Your task to perform on an android device: turn on sleep mode Image 0: 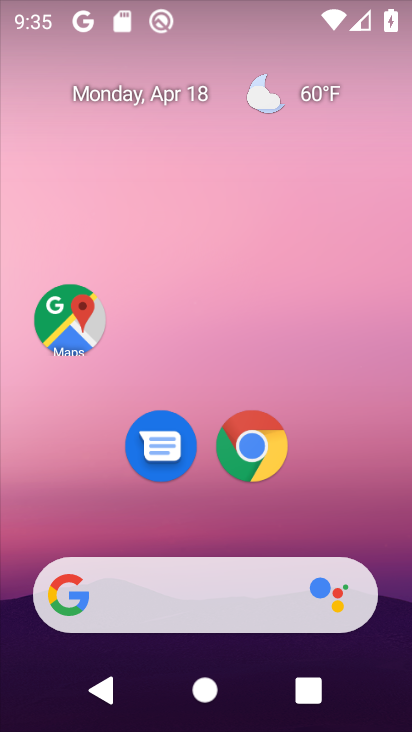
Step 0: drag from (390, 546) to (363, 25)
Your task to perform on an android device: turn on sleep mode Image 1: 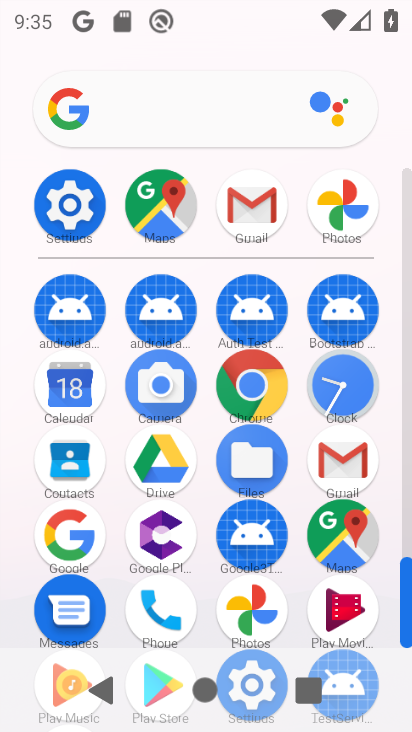
Step 1: click (80, 223)
Your task to perform on an android device: turn on sleep mode Image 2: 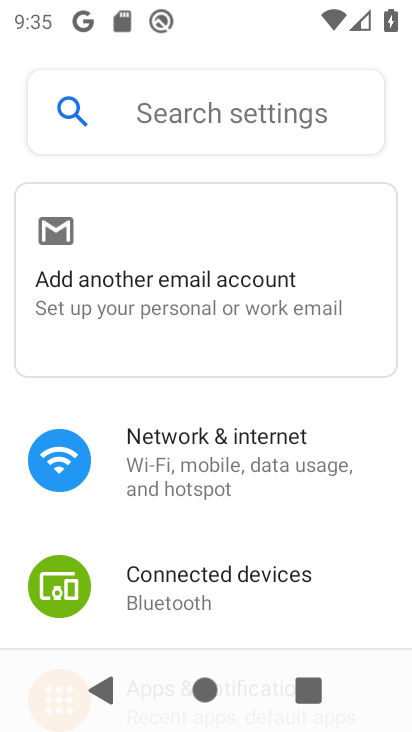
Step 2: drag from (367, 583) to (364, 365)
Your task to perform on an android device: turn on sleep mode Image 3: 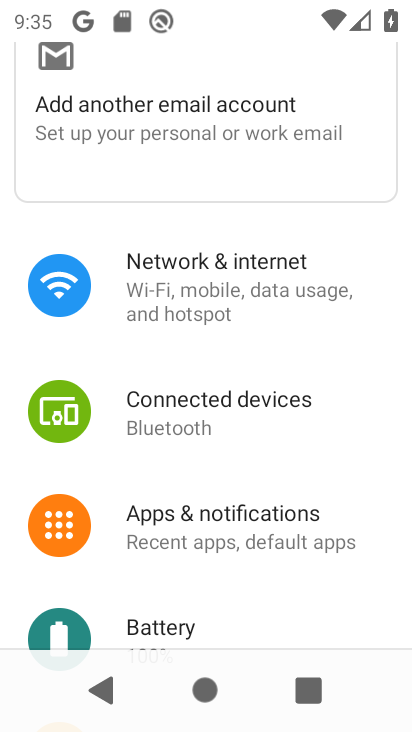
Step 3: drag from (379, 579) to (383, 397)
Your task to perform on an android device: turn on sleep mode Image 4: 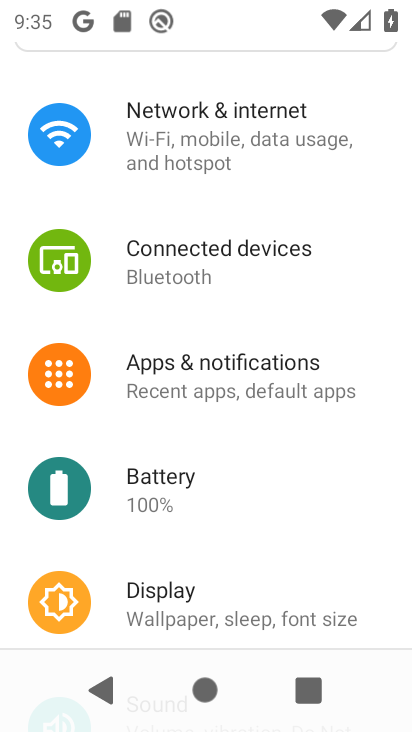
Step 4: drag from (382, 556) to (381, 441)
Your task to perform on an android device: turn on sleep mode Image 5: 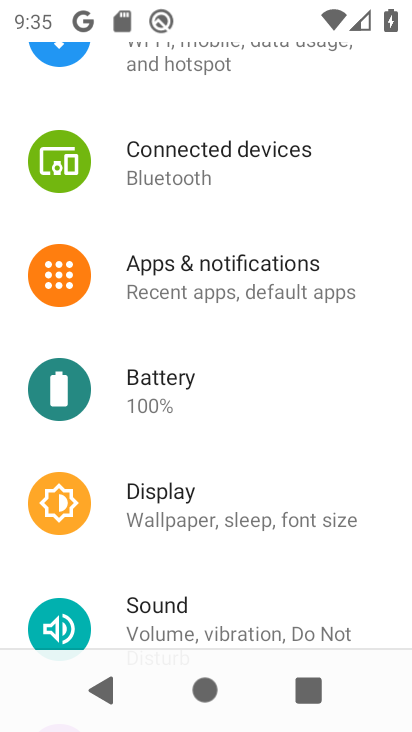
Step 5: drag from (384, 576) to (387, 443)
Your task to perform on an android device: turn on sleep mode Image 6: 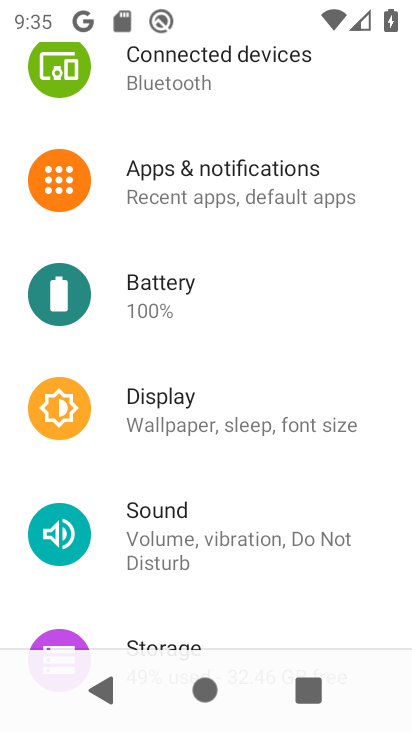
Step 6: click (203, 421)
Your task to perform on an android device: turn on sleep mode Image 7: 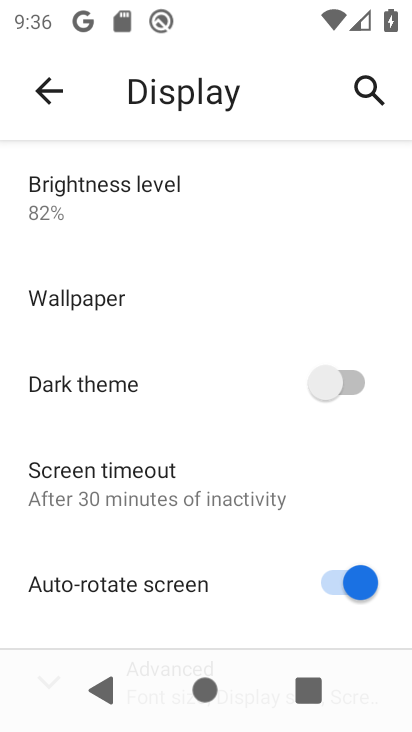
Step 7: drag from (283, 575) to (285, 332)
Your task to perform on an android device: turn on sleep mode Image 8: 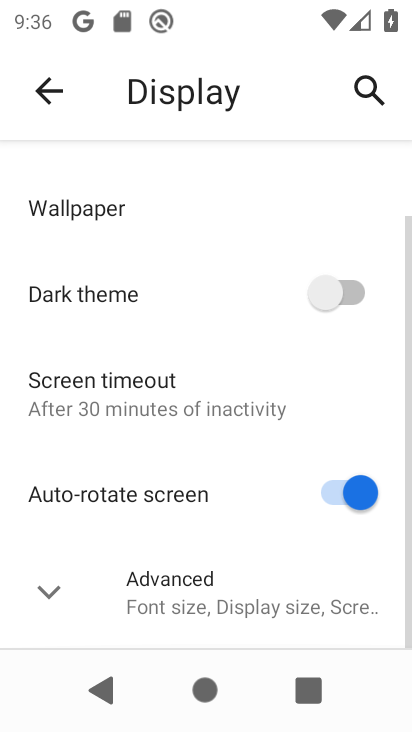
Step 8: click (202, 601)
Your task to perform on an android device: turn on sleep mode Image 9: 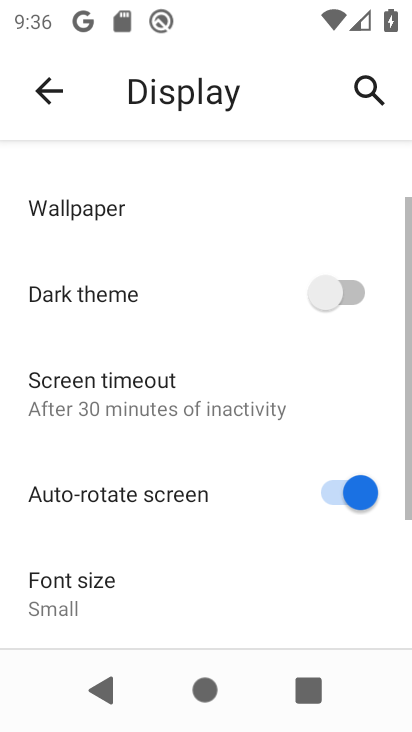
Step 9: task complete